Your task to perform on an android device: toggle javascript in the chrome app Image 0: 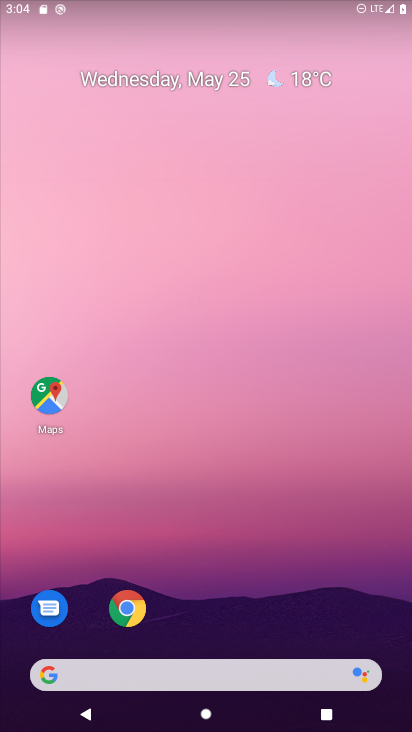
Step 0: click (129, 611)
Your task to perform on an android device: toggle javascript in the chrome app Image 1: 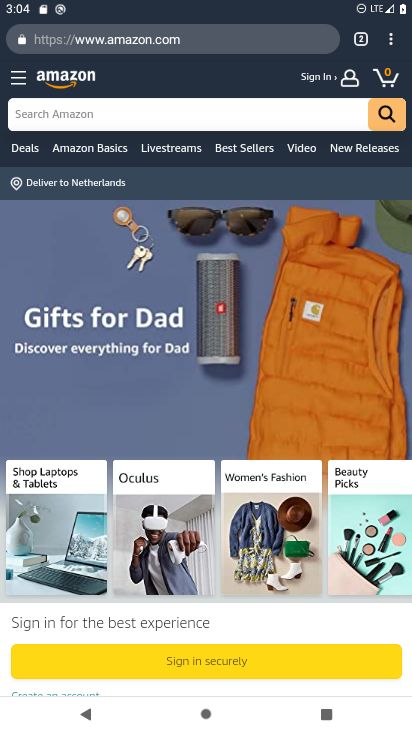
Step 1: click (388, 45)
Your task to perform on an android device: toggle javascript in the chrome app Image 2: 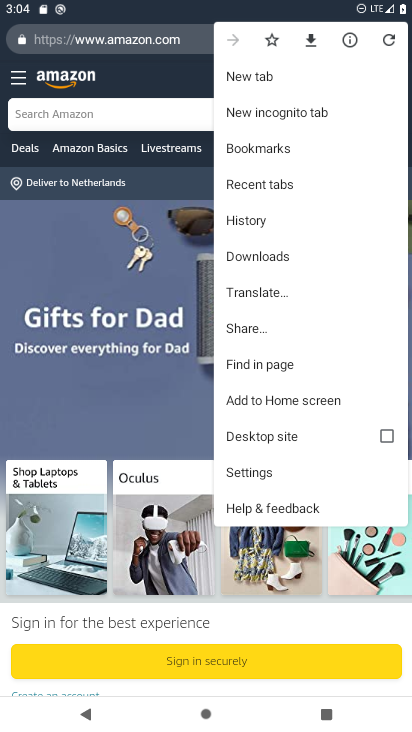
Step 2: click (249, 473)
Your task to perform on an android device: toggle javascript in the chrome app Image 3: 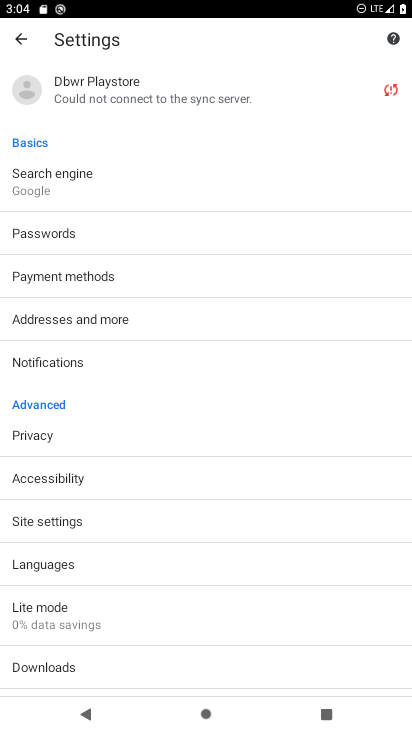
Step 3: click (45, 523)
Your task to perform on an android device: toggle javascript in the chrome app Image 4: 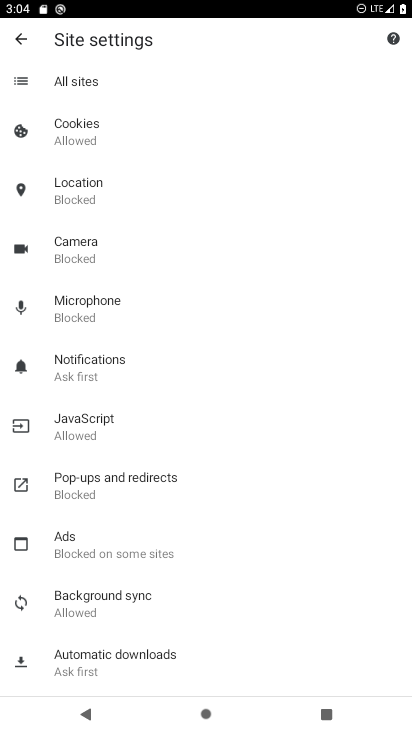
Step 4: click (79, 418)
Your task to perform on an android device: toggle javascript in the chrome app Image 5: 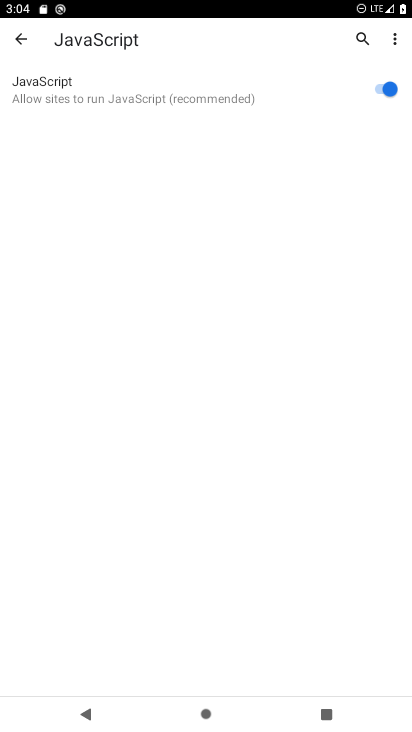
Step 5: click (377, 87)
Your task to perform on an android device: toggle javascript in the chrome app Image 6: 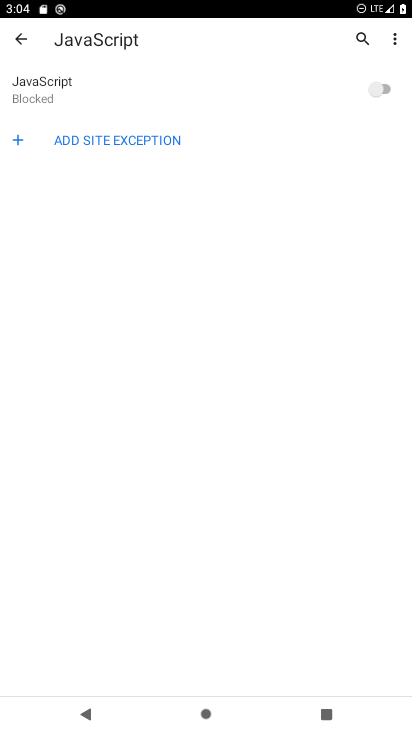
Step 6: task complete